Your task to perform on an android device: check android version Image 0: 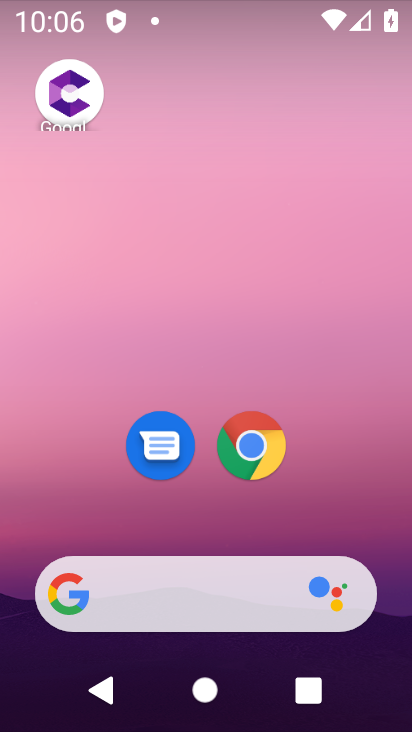
Step 0: drag from (261, 630) to (260, 123)
Your task to perform on an android device: check android version Image 1: 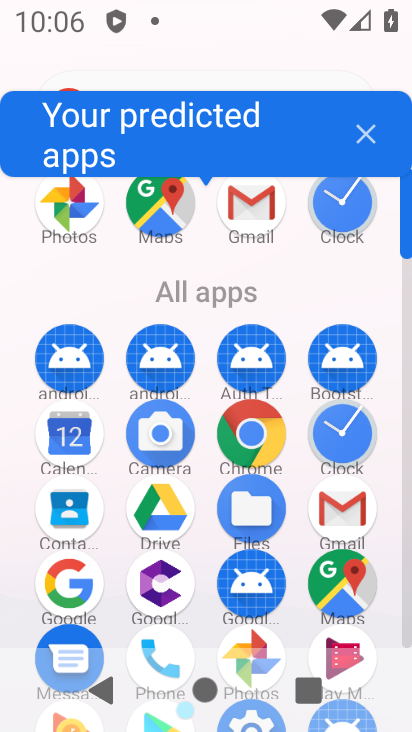
Step 1: click (357, 141)
Your task to perform on an android device: check android version Image 2: 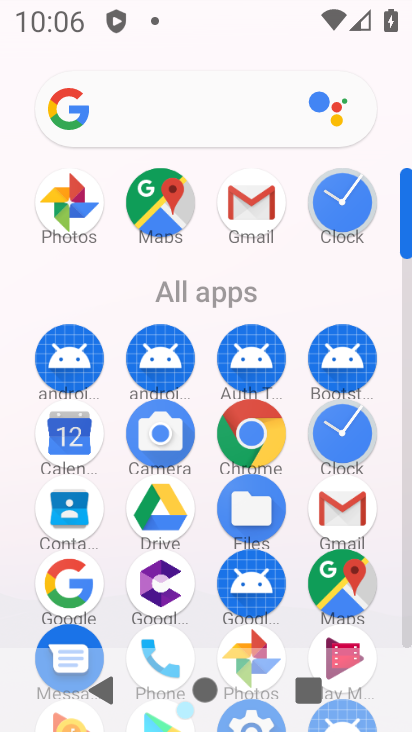
Step 2: drag from (124, 542) to (151, 319)
Your task to perform on an android device: check android version Image 3: 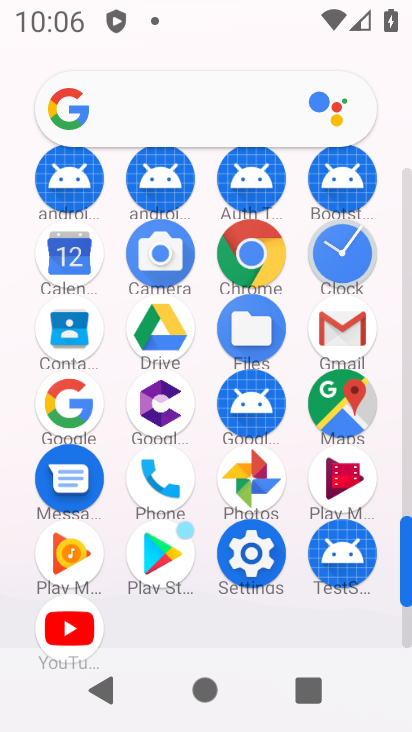
Step 3: click (250, 546)
Your task to perform on an android device: check android version Image 4: 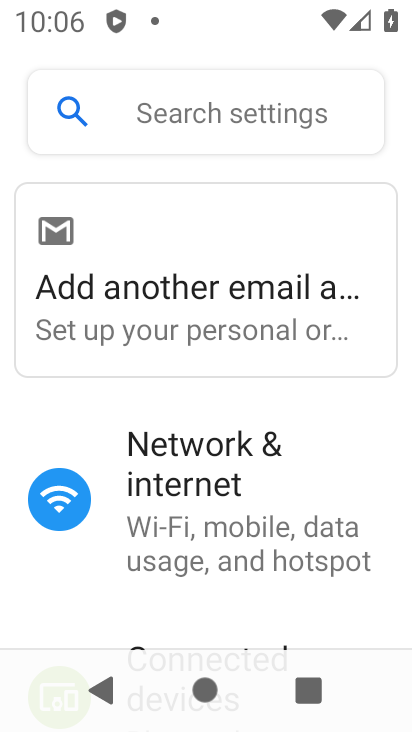
Step 4: click (183, 108)
Your task to perform on an android device: check android version Image 5: 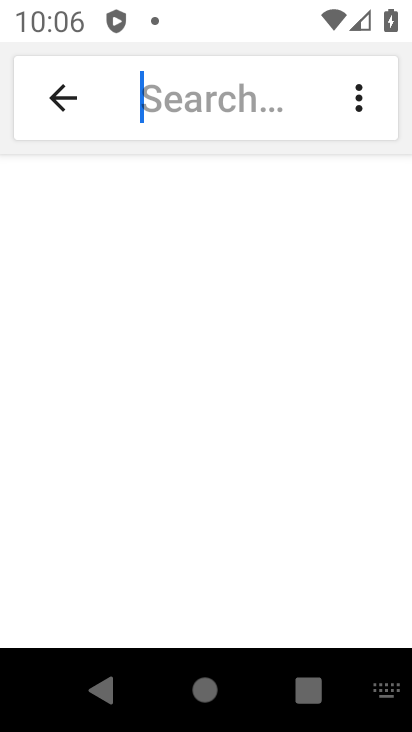
Step 5: click (395, 688)
Your task to perform on an android device: check android version Image 6: 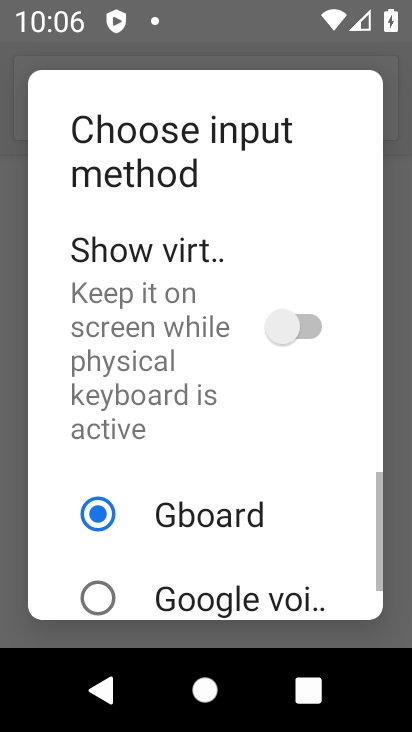
Step 6: click (298, 327)
Your task to perform on an android device: check android version Image 7: 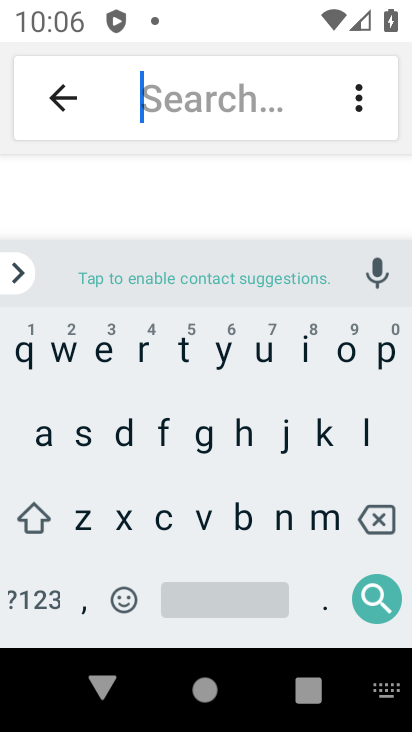
Step 7: click (50, 441)
Your task to perform on an android device: check android version Image 8: 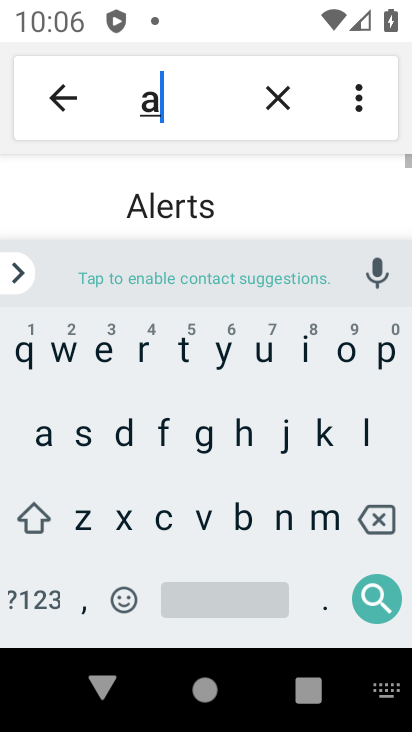
Step 8: click (285, 514)
Your task to perform on an android device: check android version Image 9: 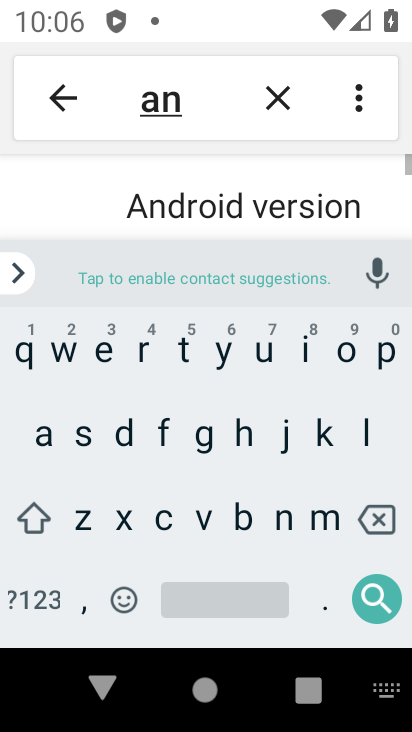
Step 9: click (210, 206)
Your task to perform on an android device: check android version Image 10: 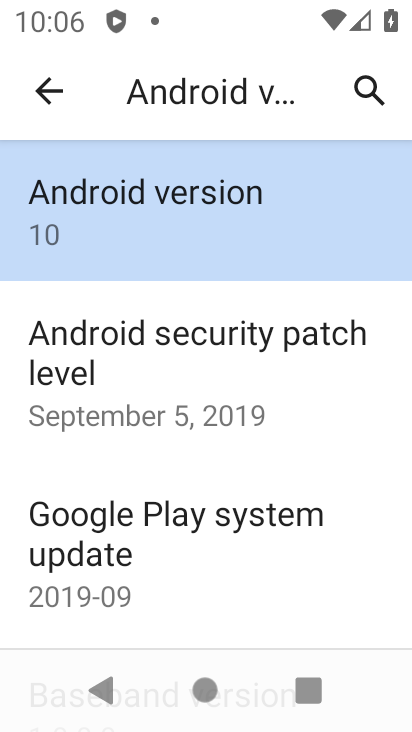
Step 10: click (199, 197)
Your task to perform on an android device: check android version Image 11: 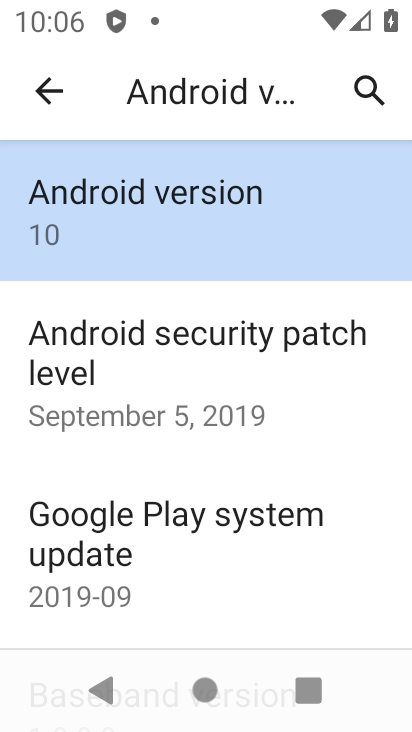
Step 11: task complete